Your task to perform on an android device: Open Chrome and go to settings Image 0: 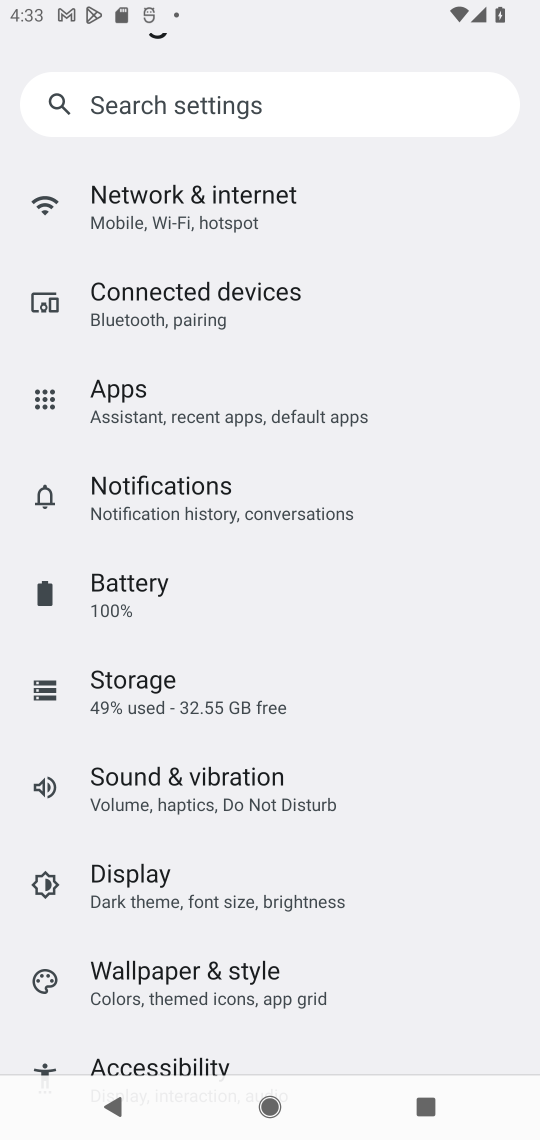
Step 0: press home button
Your task to perform on an android device: Open Chrome and go to settings Image 1: 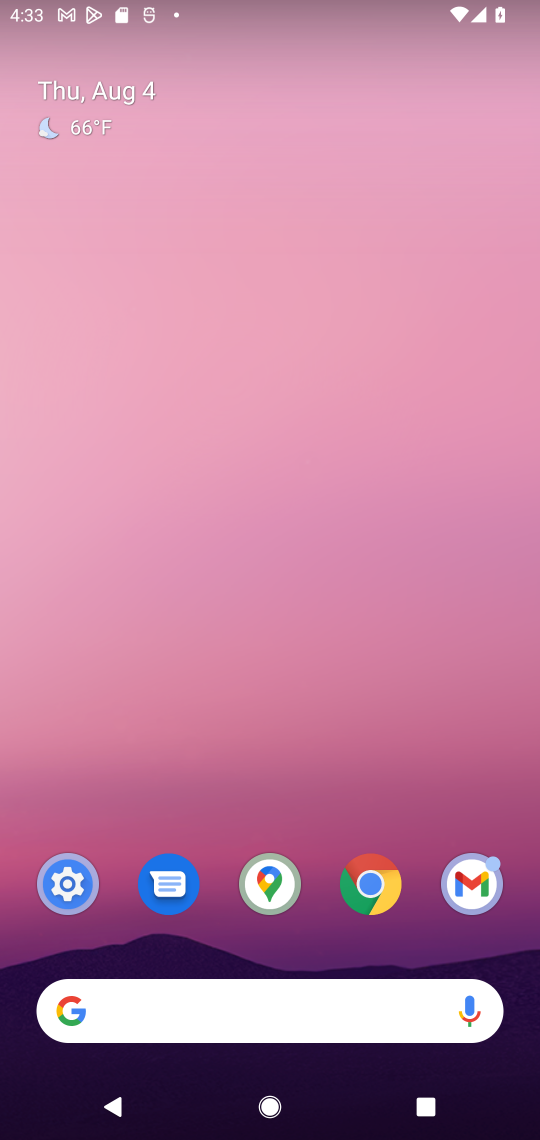
Step 1: click (71, 886)
Your task to perform on an android device: Open Chrome and go to settings Image 2: 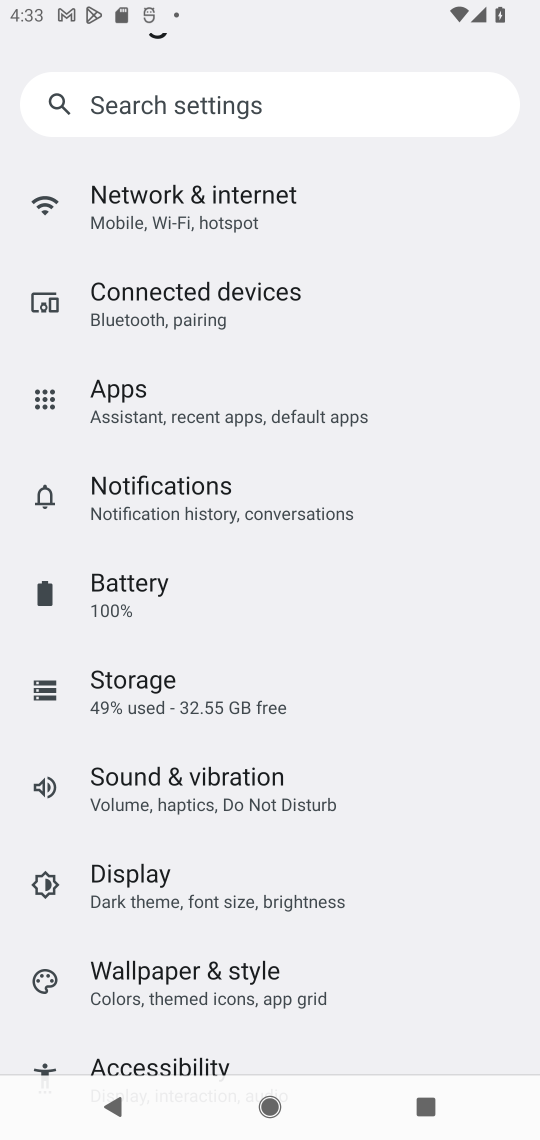
Step 2: press home button
Your task to perform on an android device: Open Chrome and go to settings Image 3: 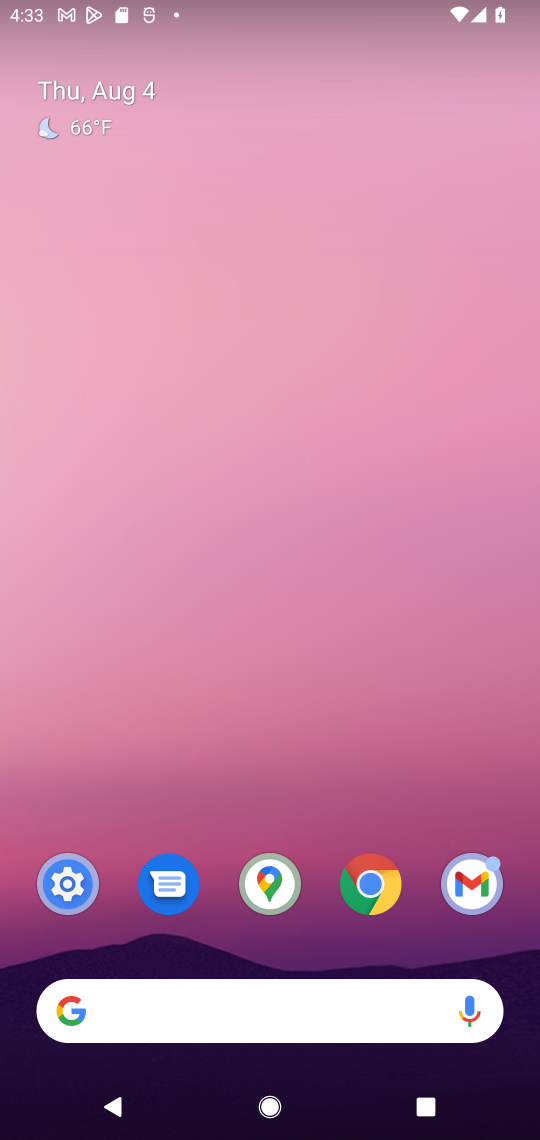
Step 3: click (372, 897)
Your task to perform on an android device: Open Chrome and go to settings Image 4: 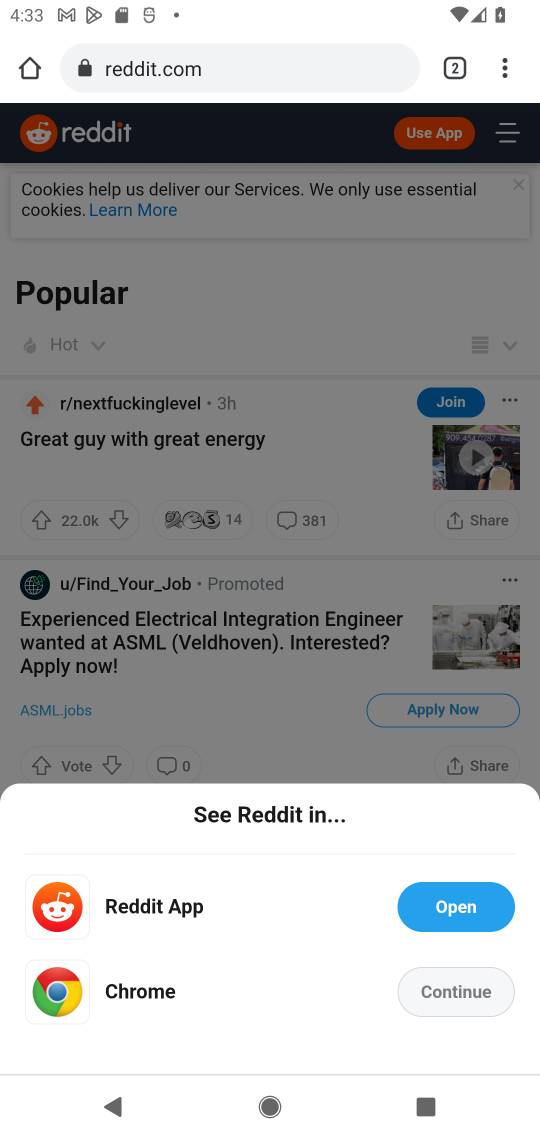
Step 4: click (504, 71)
Your task to perform on an android device: Open Chrome and go to settings Image 5: 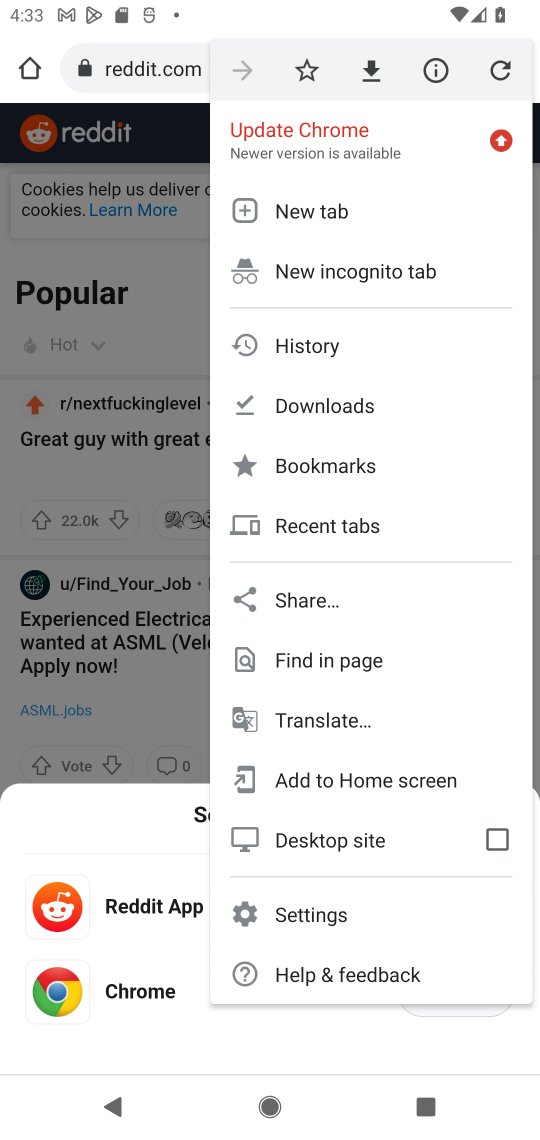
Step 5: click (323, 937)
Your task to perform on an android device: Open Chrome and go to settings Image 6: 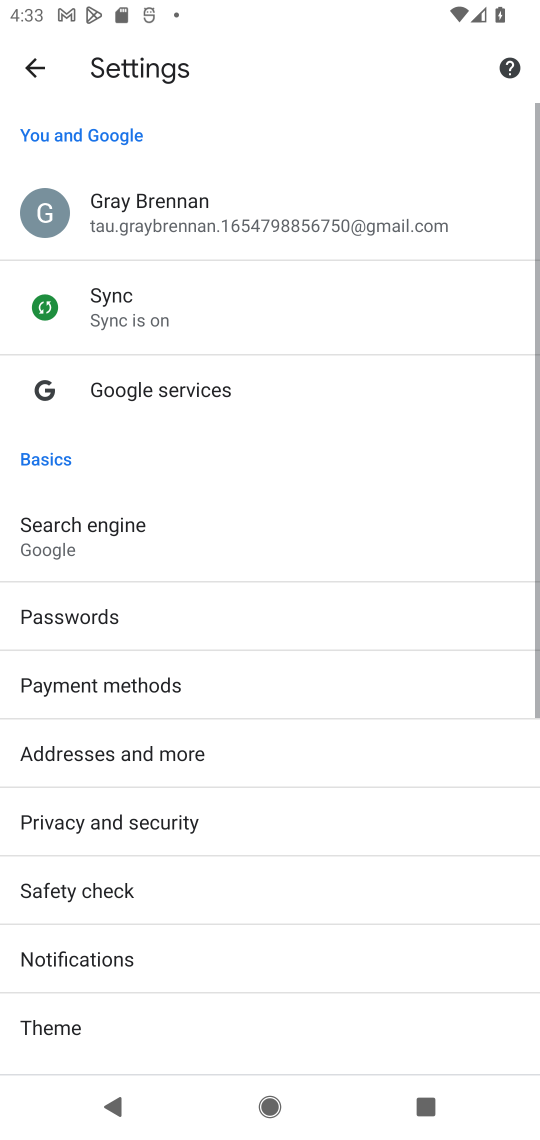
Step 6: task complete